Your task to perform on an android device: Open Youtube and go to "Your channel" Image 0: 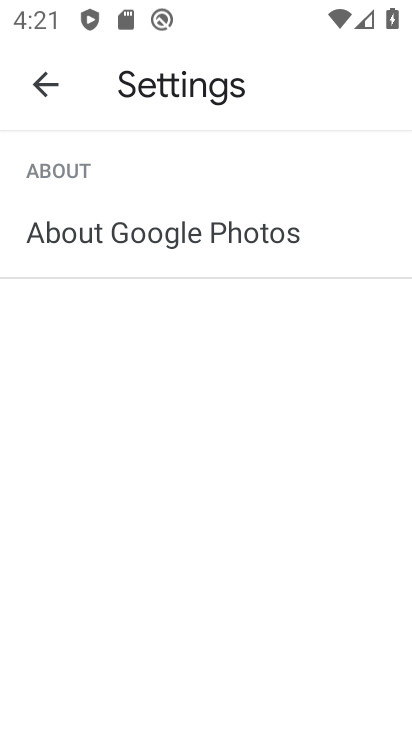
Step 0: press back button
Your task to perform on an android device: Open Youtube and go to "Your channel" Image 1: 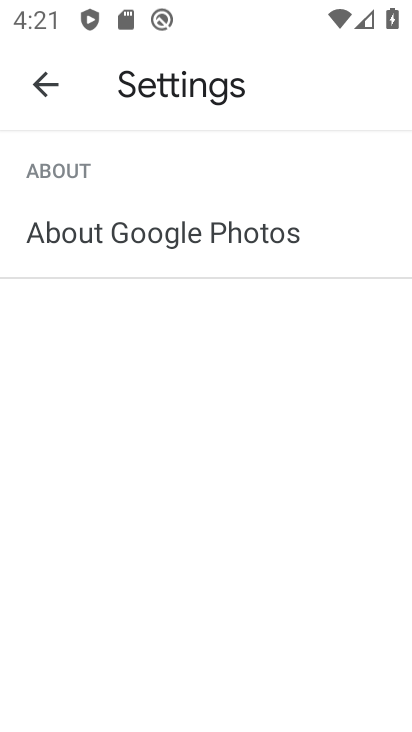
Step 1: press back button
Your task to perform on an android device: Open Youtube and go to "Your channel" Image 2: 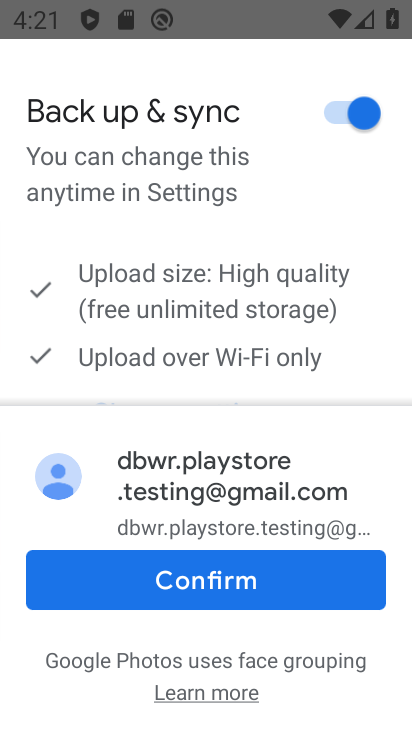
Step 2: press back button
Your task to perform on an android device: Open Youtube and go to "Your channel" Image 3: 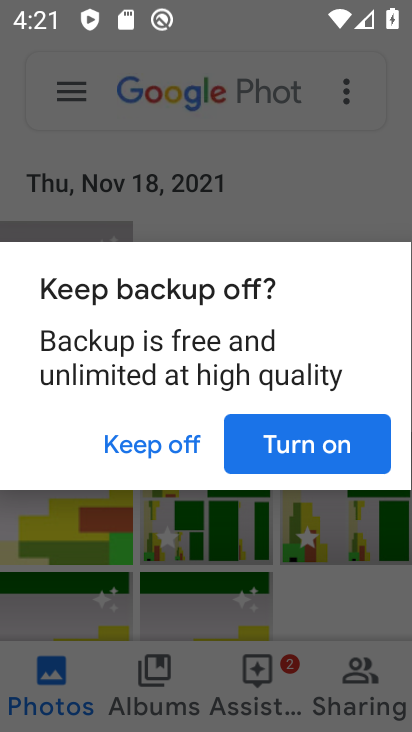
Step 3: press back button
Your task to perform on an android device: Open Youtube and go to "Your channel" Image 4: 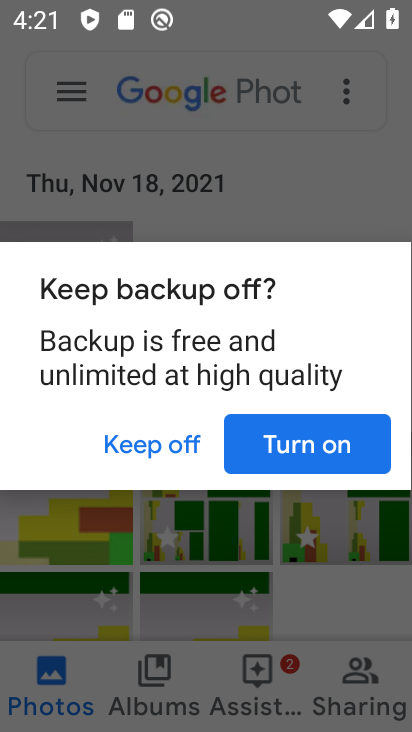
Step 4: press back button
Your task to perform on an android device: Open Youtube and go to "Your channel" Image 5: 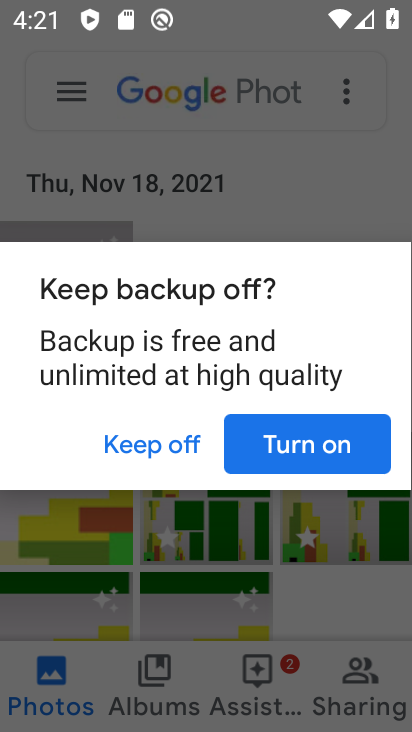
Step 5: press back button
Your task to perform on an android device: Open Youtube and go to "Your channel" Image 6: 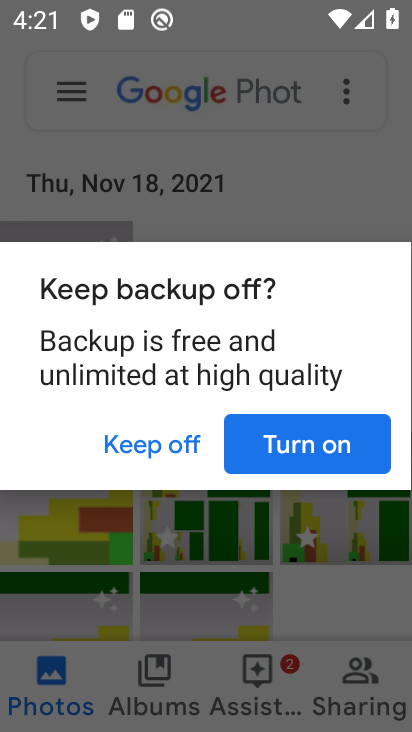
Step 6: press back button
Your task to perform on an android device: Open Youtube and go to "Your channel" Image 7: 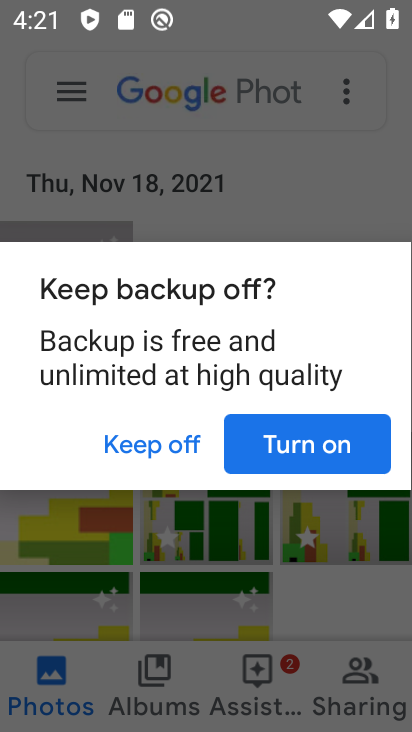
Step 7: press back button
Your task to perform on an android device: Open Youtube and go to "Your channel" Image 8: 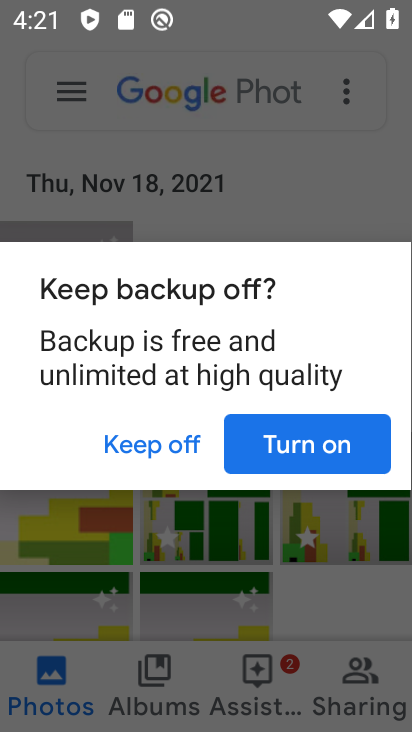
Step 8: press back button
Your task to perform on an android device: Open Youtube and go to "Your channel" Image 9: 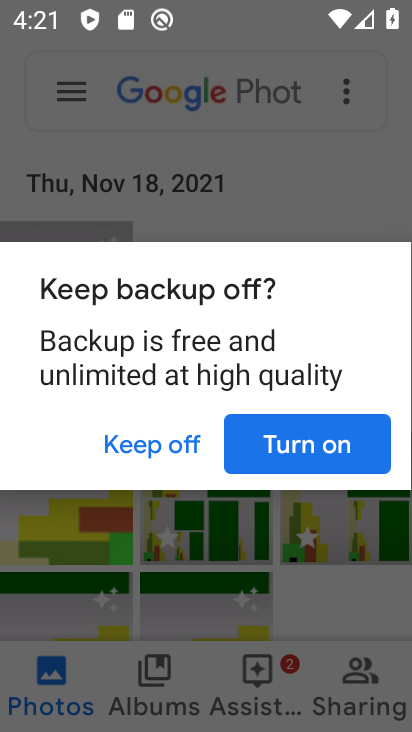
Step 9: press home button
Your task to perform on an android device: Open Youtube and go to "Your channel" Image 10: 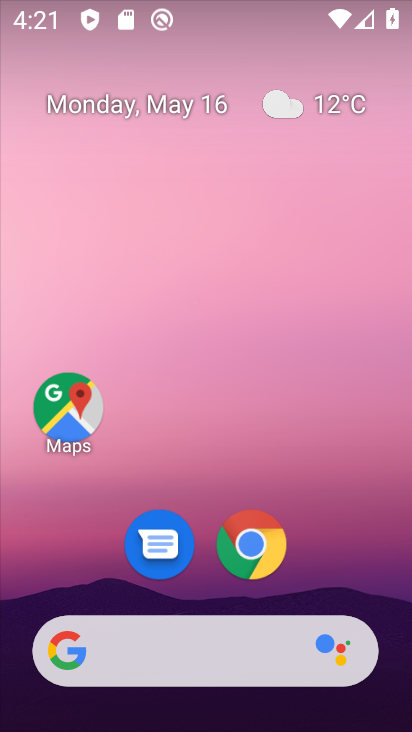
Step 10: drag from (309, 589) to (235, 66)
Your task to perform on an android device: Open Youtube and go to "Your channel" Image 11: 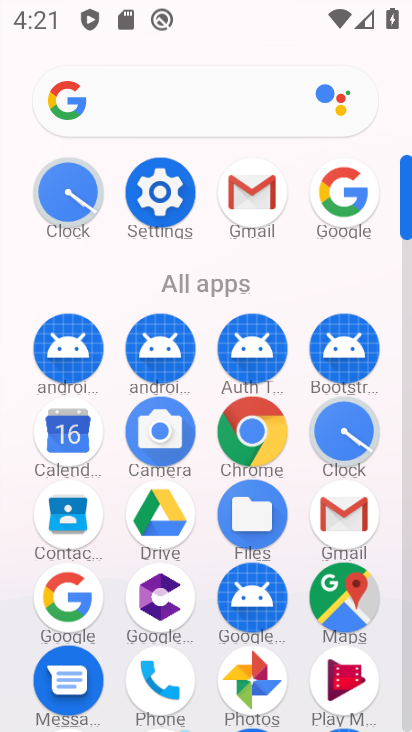
Step 11: drag from (279, 545) to (235, 207)
Your task to perform on an android device: Open Youtube and go to "Your channel" Image 12: 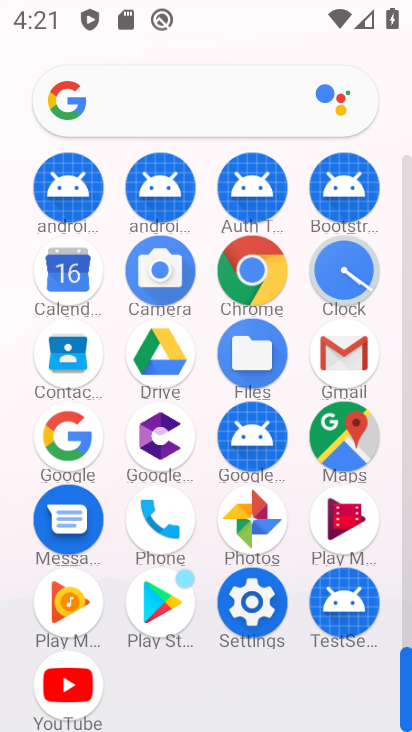
Step 12: click (65, 681)
Your task to perform on an android device: Open Youtube and go to "Your channel" Image 13: 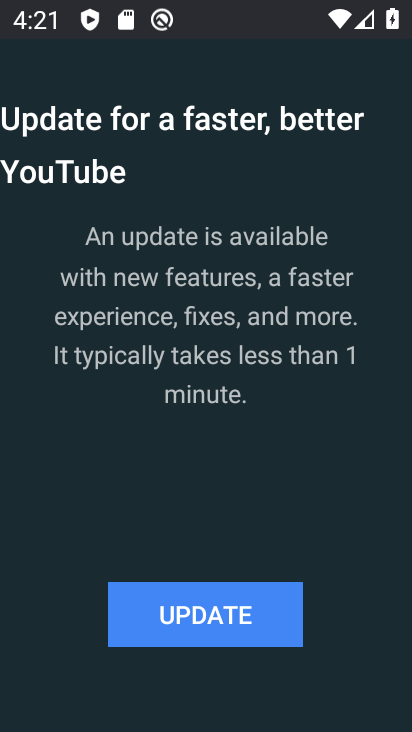
Step 13: click (209, 619)
Your task to perform on an android device: Open Youtube and go to "Your channel" Image 14: 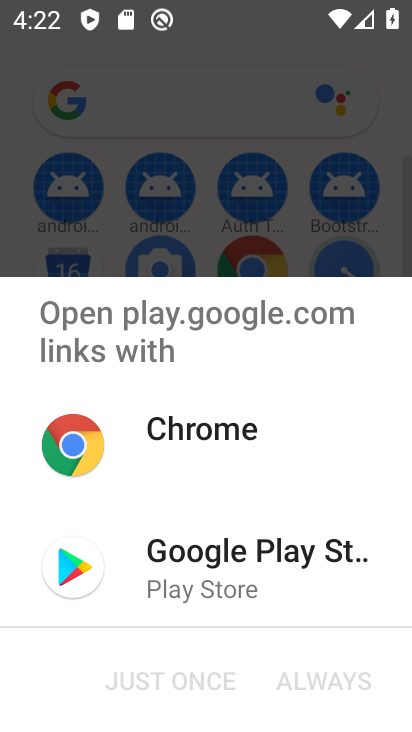
Step 14: click (188, 545)
Your task to perform on an android device: Open Youtube and go to "Your channel" Image 15: 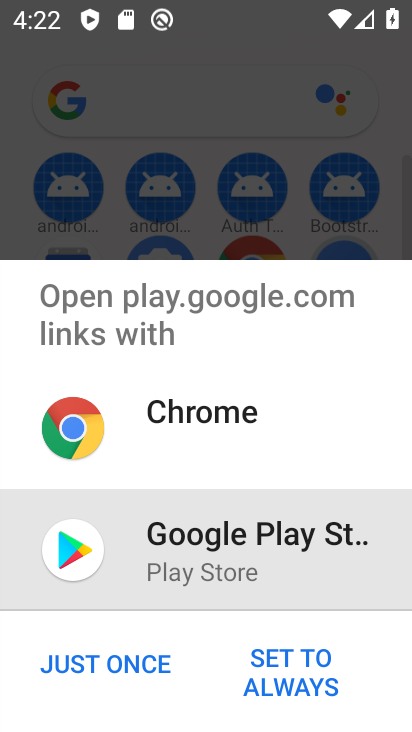
Step 15: click (99, 663)
Your task to perform on an android device: Open Youtube and go to "Your channel" Image 16: 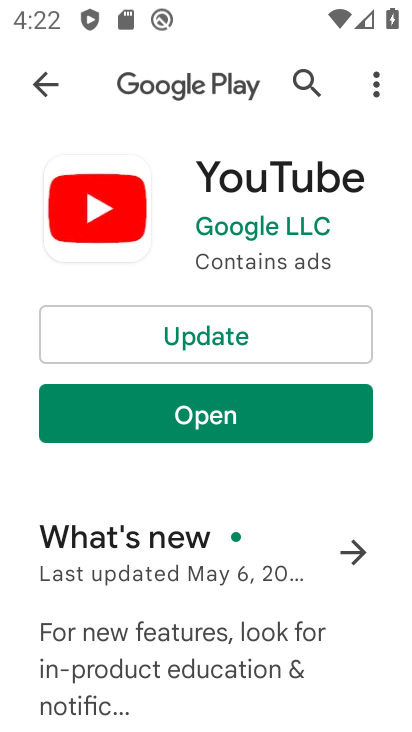
Step 16: click (193, 326)
Your task to perform on an android device: Open Youtube and go to "Your channel" Image 17: 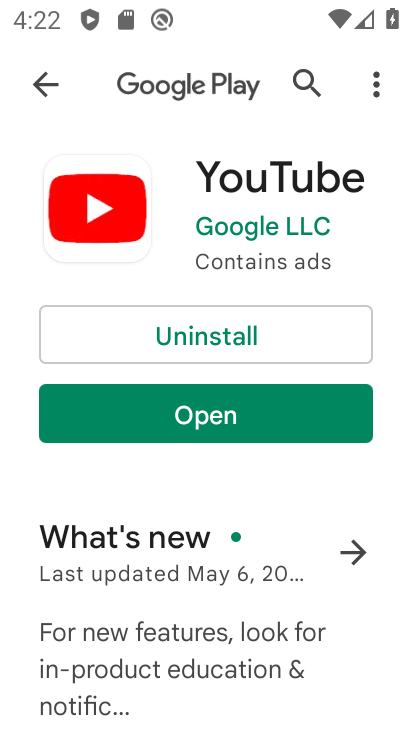
Step 17: click (214, 409)
Your task to perform on an android device: Open Youtube and go to "Your channel" Image 18: 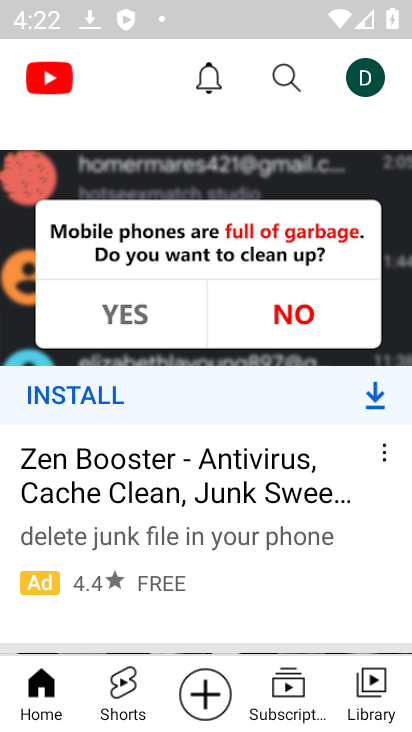
Step 18: click (374, 78)
Your task to perform on an android device: Open Youtube and go to "Your channel" Image 19: 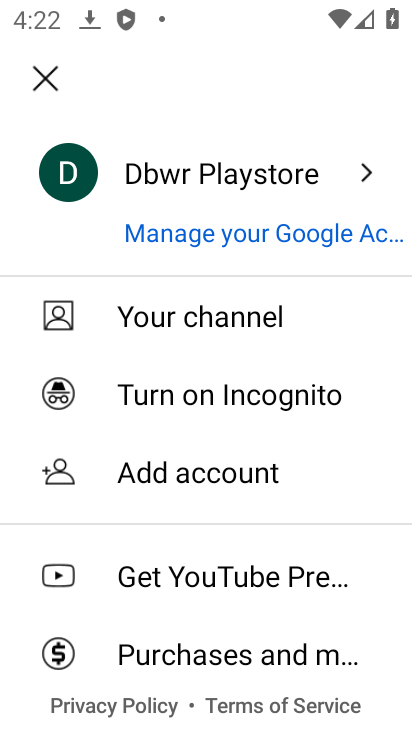
Step 19: click (226, 317)
Your task to perform on an android device: Open Youtube and go to "Your channel" Image 20: 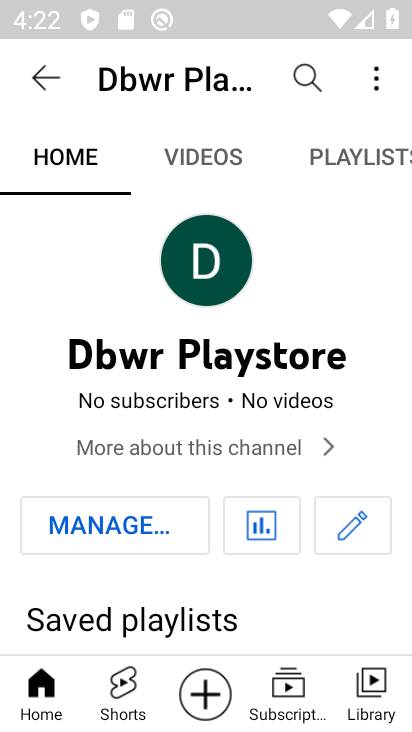
Step 20: task complete